Your task to perform on an android device: install app "Google Play Games" Image 0: 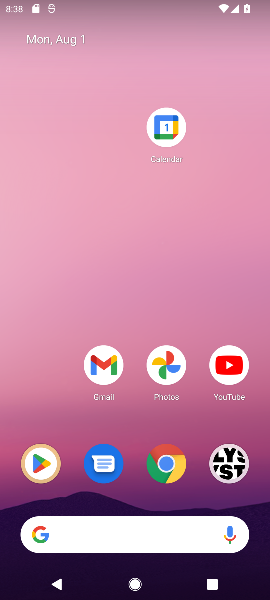
Step 0: click (41, 454)
Your task to perform on an android device: install app "Google Play Games" Image 1: 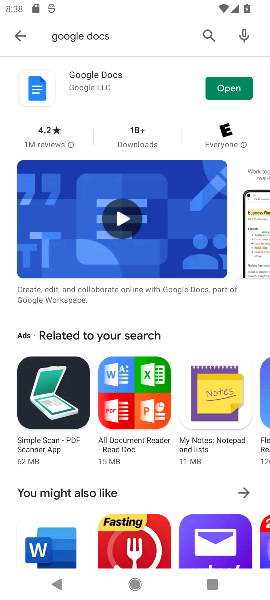
Step 1: task complete